Your task to perform on an android device: turn on airplane mode Image 0: 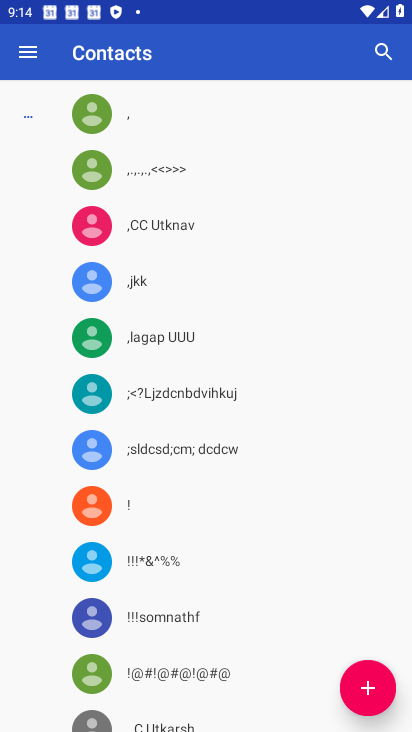
Step 0: press back button
Your task to perform on an android device: turn on airplane mode Image 1: 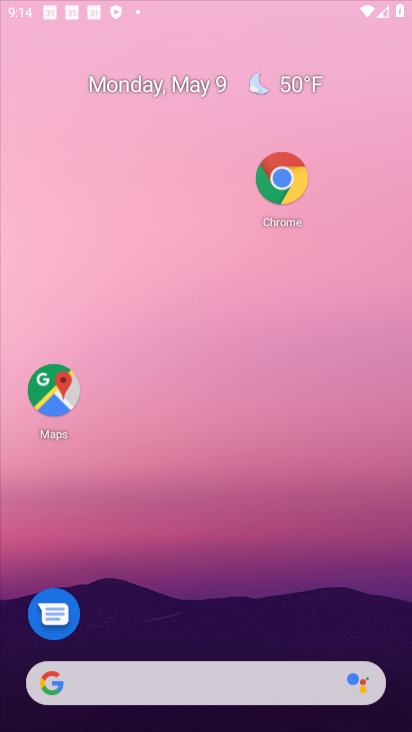
Step 1: press home button
Your task to perform on an android device: turn on airplane mode Image 2: 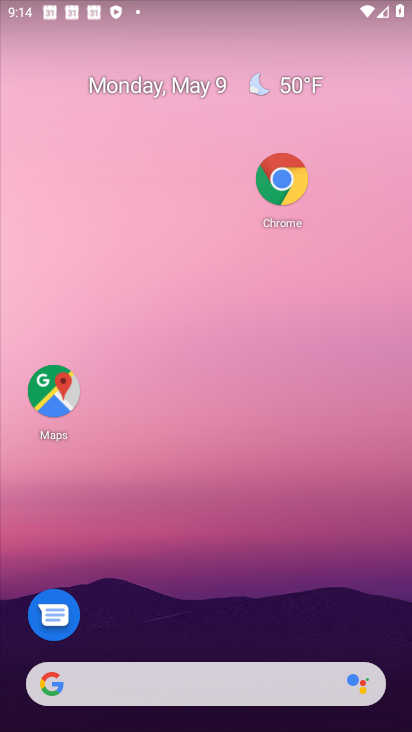
Step 2: drag from (161, 645) to (258, 158)
Your task to perform on an android device: turn on airplane mode Image 3: 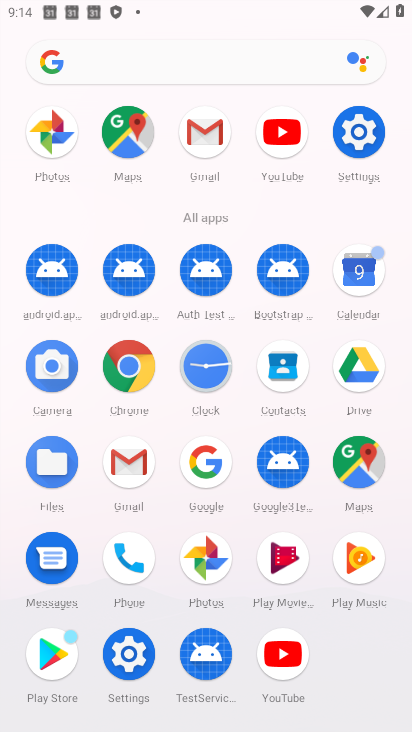
Step 3: click (148, 646)
Your task to perform on an android device: turn on airplane mode Image 4: 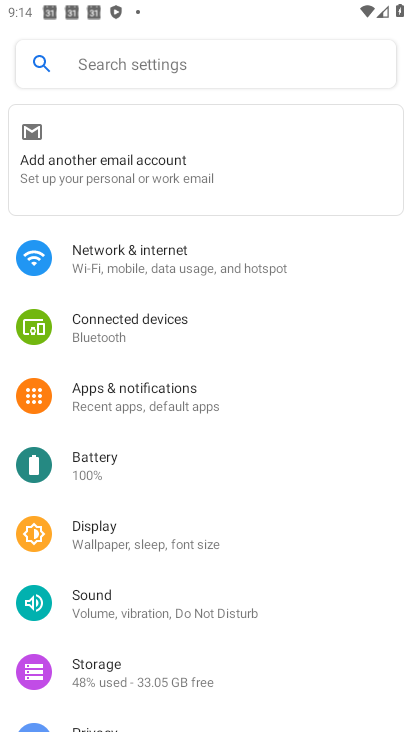
Step 4: click (228, 273)
Your task to perform on an android device: turn on airplane mode Image 5: 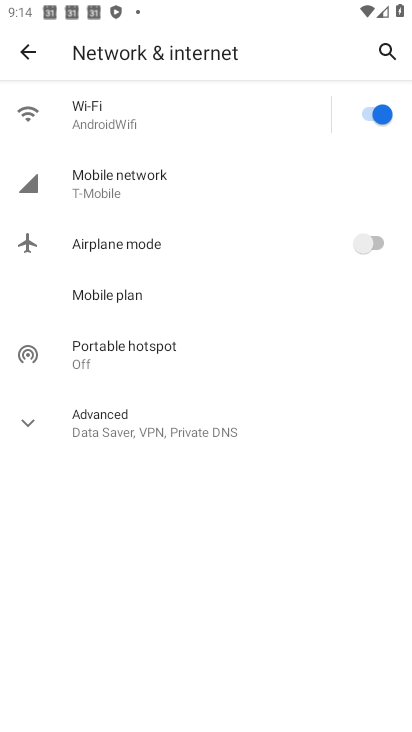
Step 5: click (397, 246)
Your task to perform on an android device: turn on airplane mode Image 6: 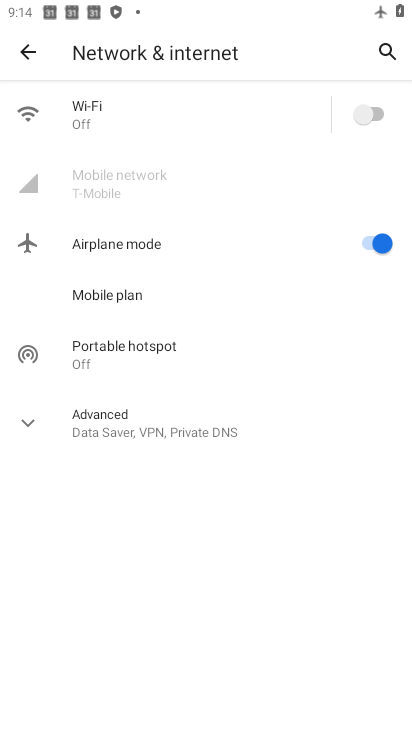
Step 6: task complete